Your task to perform on an android device: check data usage Image 0: 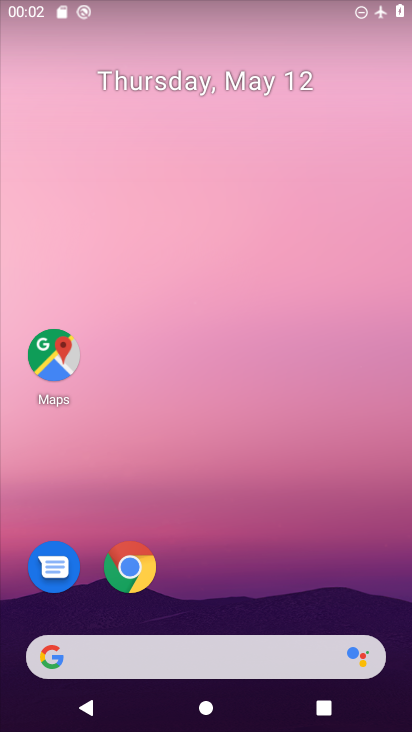
Step 0: drag from (249, 700) to (165, 24)
Your task to perform on an android device: check data usage Image 1: 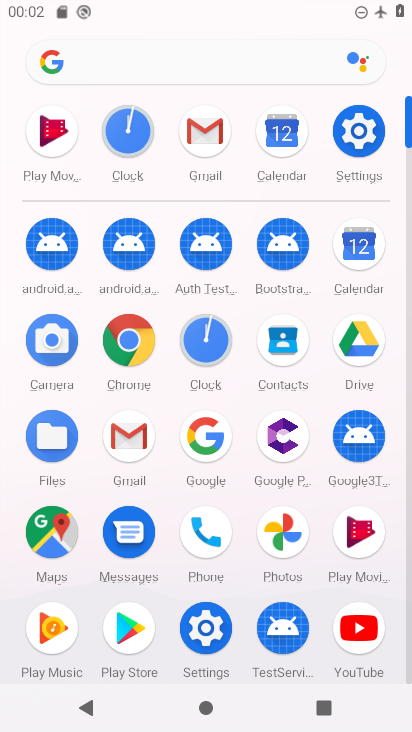
Step 1: click (367, 121)
Your task to perform on an android device: check data usage Image 2: 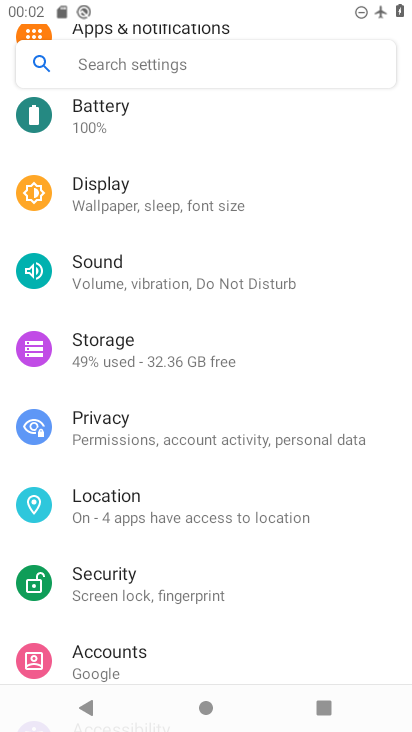
Step 2: drag from (223, 156) to (155, 621)
Your task to perform on an android device: check data usage Image 3: 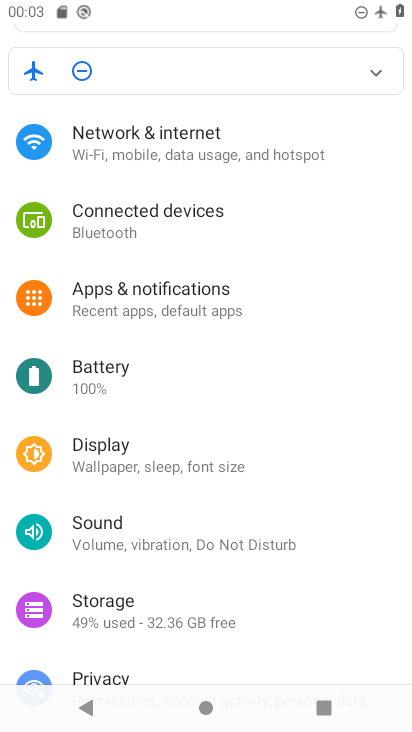
Step 3: click (237, 137)
Your task to perform on an android device: check data usage Image 4: 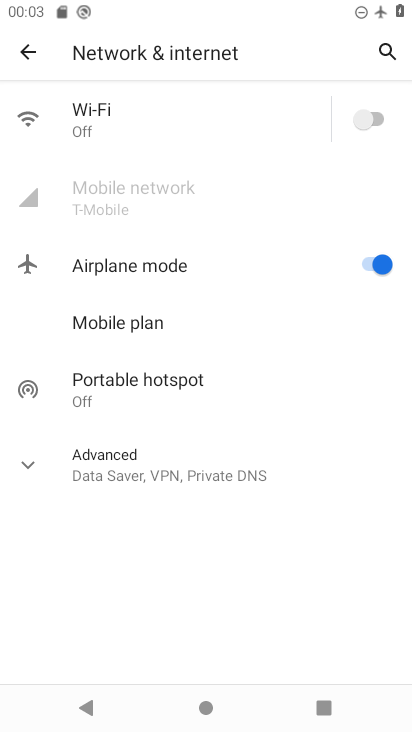
Step 4: click (110, 183)
Your task to perform on an android device: check data usage Image 5: 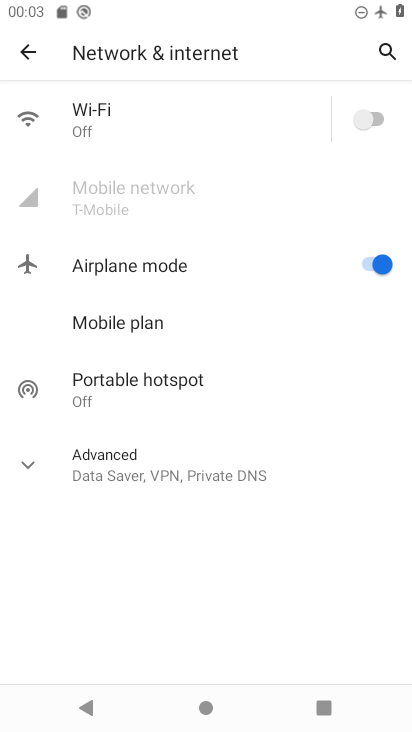
Step 5: task complete